Your task to perform on an android device: Open ESPN.com Image 0: 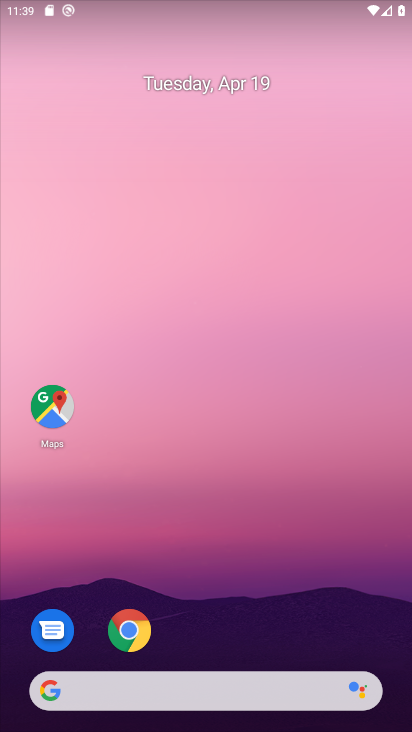
Step 0: click (141, 635)
Your task to perform on an android device: Open ESPN.com Image 1: 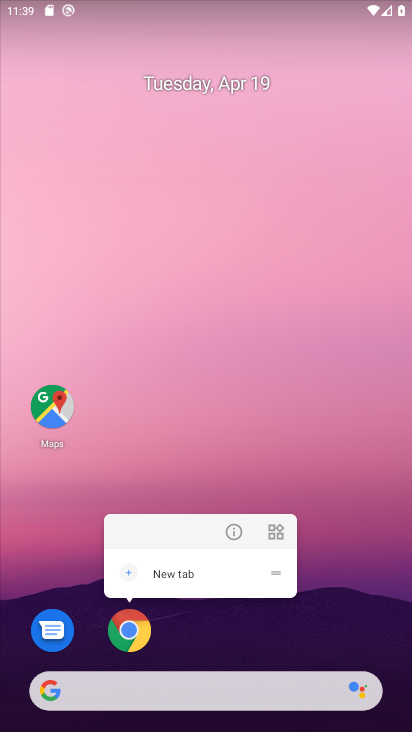
Step 1: click (130, 629)
Your task to perform on an android device: Open ESPN.com Image 2: 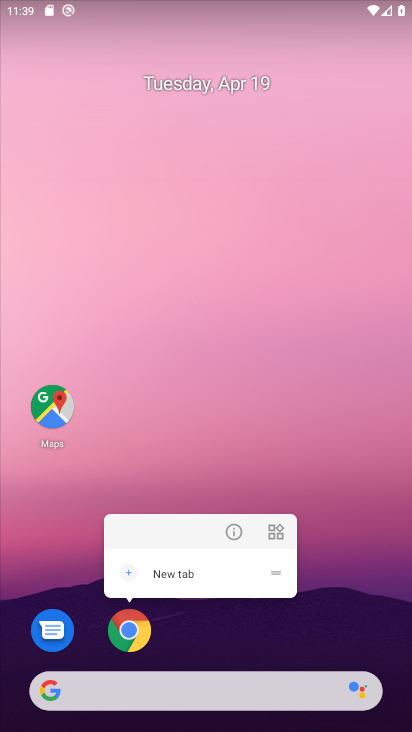
Step 2: click (130, 629)
Your task to perform on an android device: Open ESPN.com Image 3: 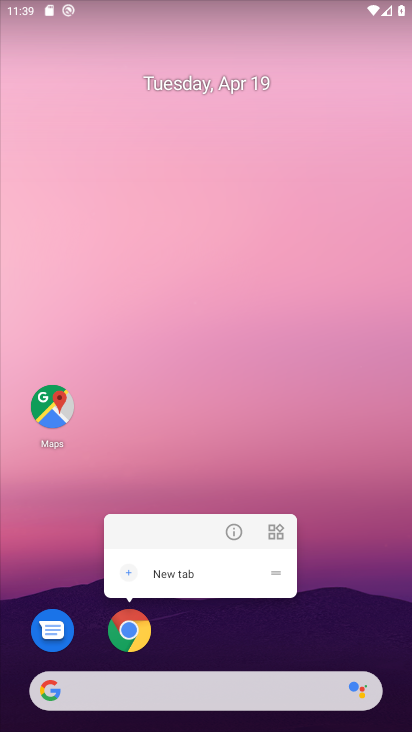
Step 3: click (130, 629)
Your task to perform on an android device: Open ESPN.com Image 4: 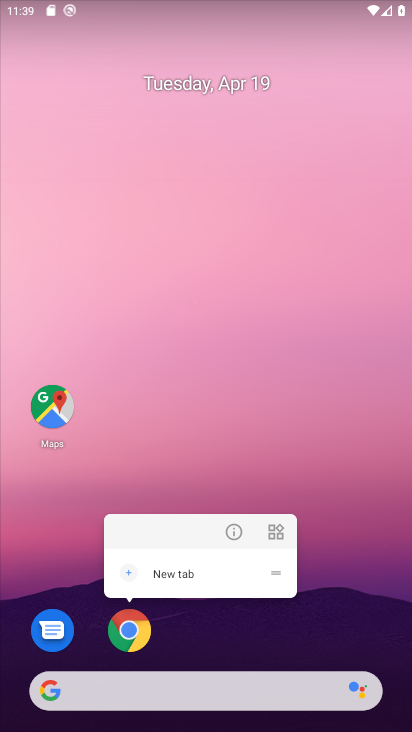
Step 4: click (130, 629)
Your task to perform on an android device: Open ESPN.com Image 5: 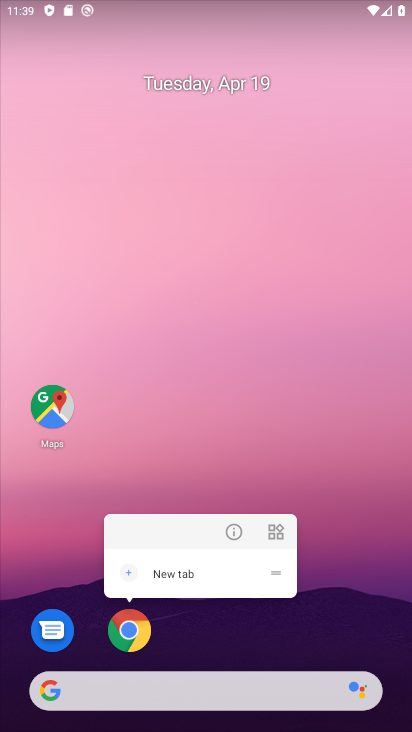
Step 5: click (129, 630)
Your task to perform on an android device: Open ESPN.com Image 6: 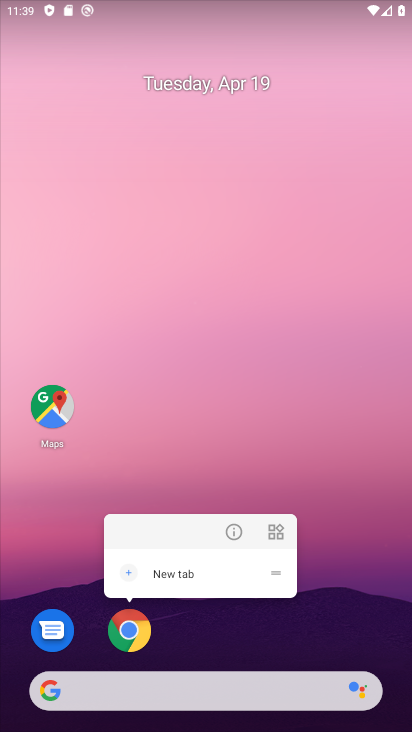
Step 6: click (129, 630)
Your task to perform on an android device: Open ESPN.com Image 7: 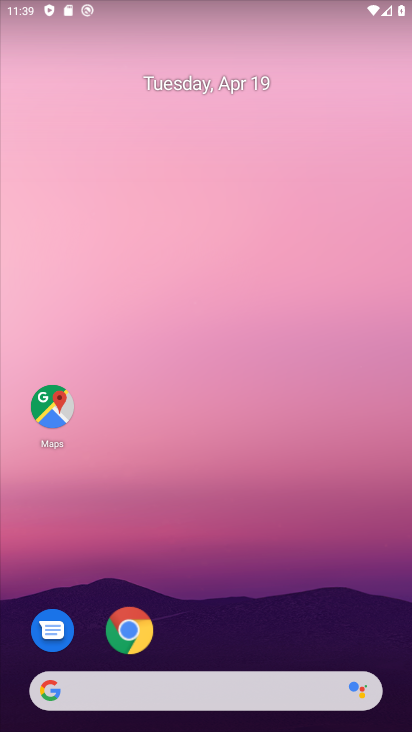
Step 7: click (129, 630)
Your task to perform on an android device: Open ESPN.com Image 8: 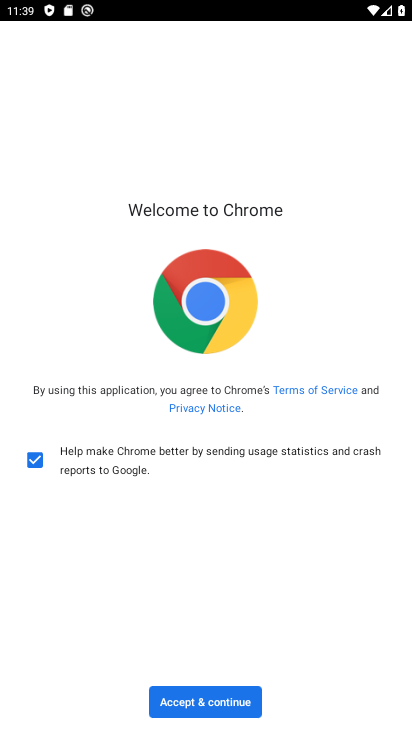
Step 8: click (211, 711)
Your task to perform on an android device: Open ESPN.com Image 9: 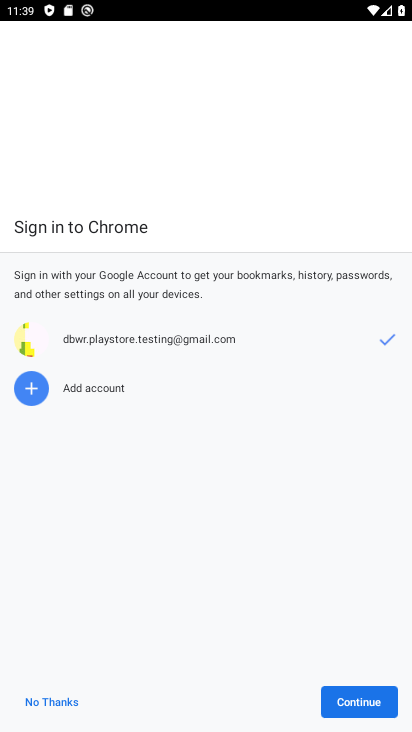
Step 9: click (386, 708)
Your task to perform on an android device: Open ESPN.com Image 10: 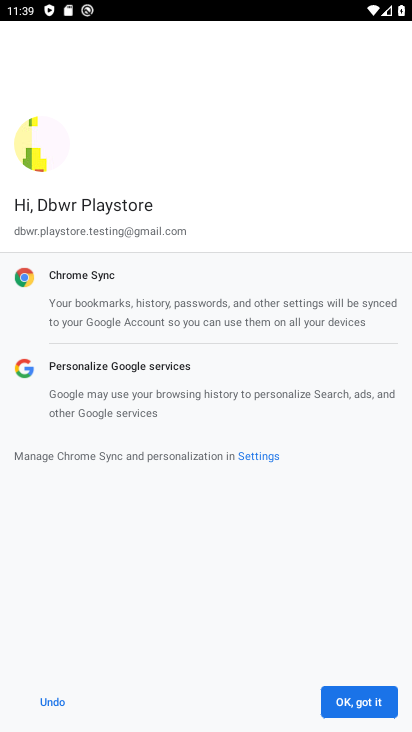
Step 10: click (376, 709)
Your task to perform on an android device: Open ESPN.com Image 11: 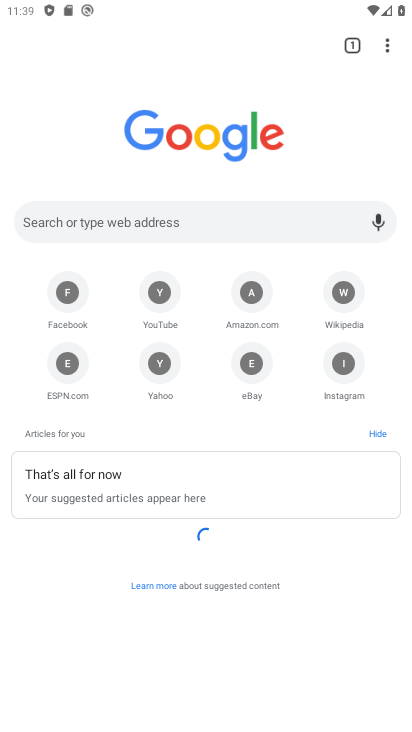
Step 11: click (69, 369)
Your task to perform on an android device: Open ESPN.com Image 12: 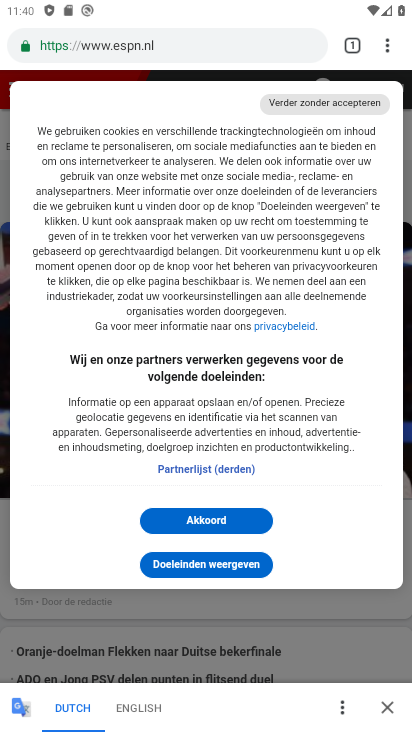
Step 12: task complete